Your task to perform on an android device: open app "Airtel Thanks" (install if not already installed), go to login, and select forgot password Image 0: 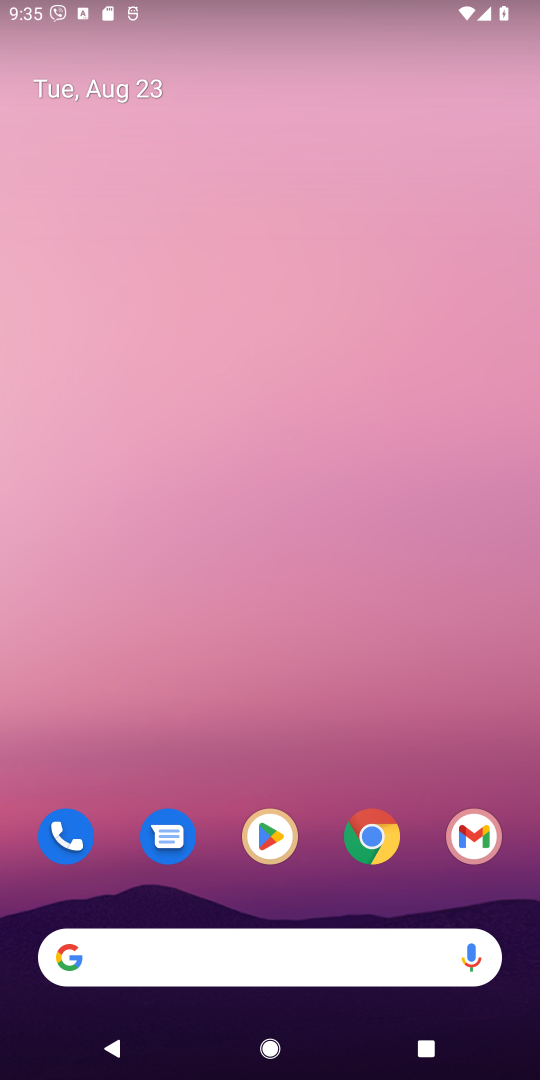
Step 0: click (269, 837)
Your task to perform on an android device: open app "Airtel Thanks" (install if not already installed), go to login, and select forgot password Image 1: 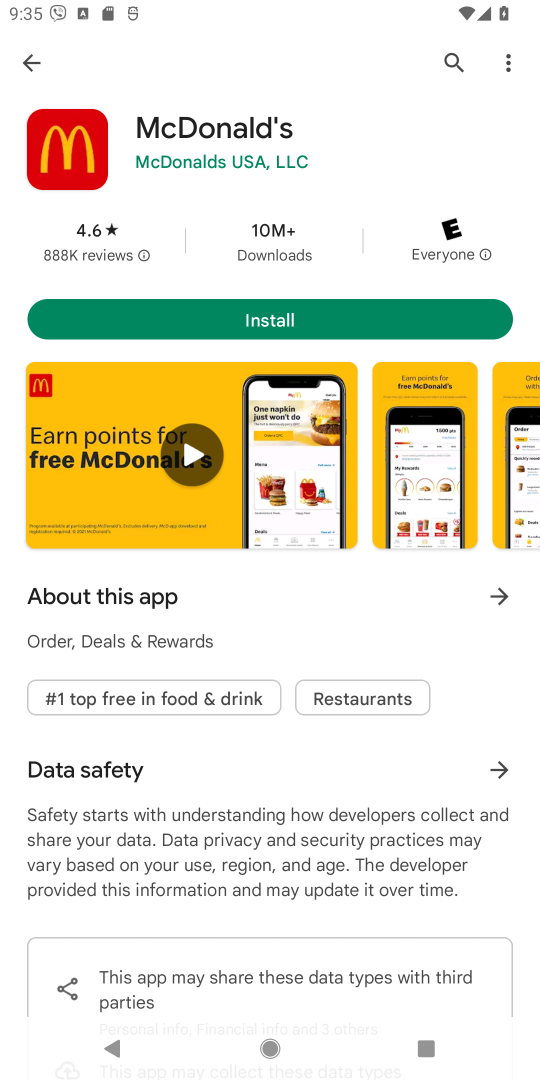
Step 1: click (448, 57)
Your task to perform on an android device: open app "Airtel Thanks" (install if not already installed), go to login, and select forgot password Image 2: 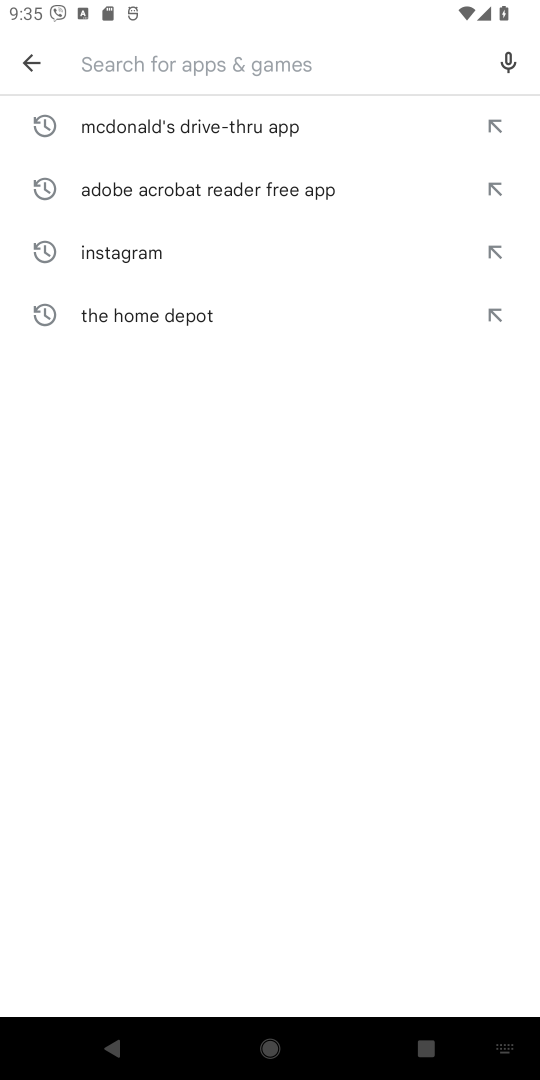
Step 2: type "Airtel Thanks"
Your task to perform on an android device: open app "Airtel Thanks" (install if not already installed), go to login, and select forgot password Image 3: 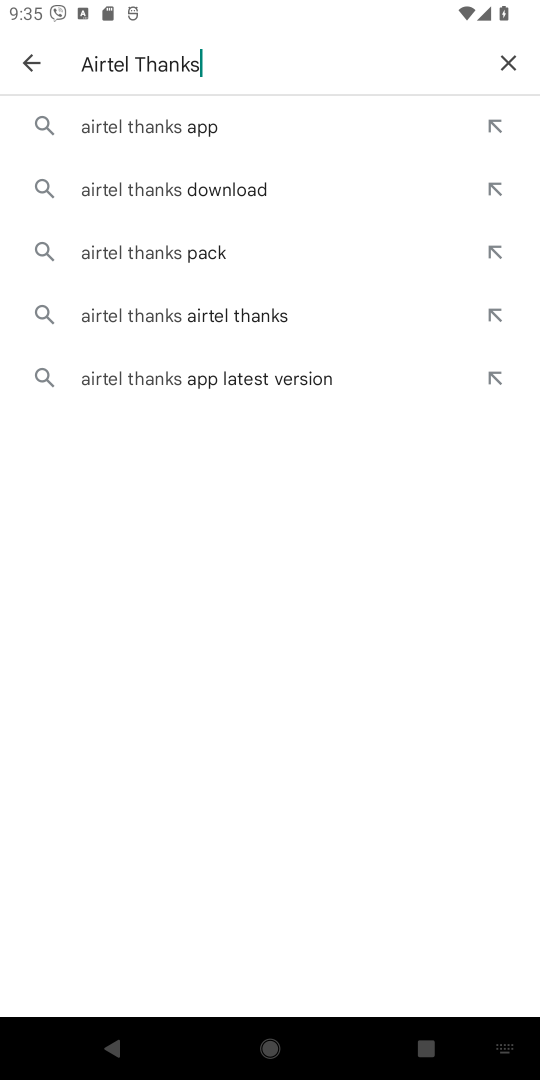
Step 3: click (153, 121)
Your task to perform on an android device: open app "Airtel Thanks" (install if not already installed), go to login, and select forgot password Image 4: 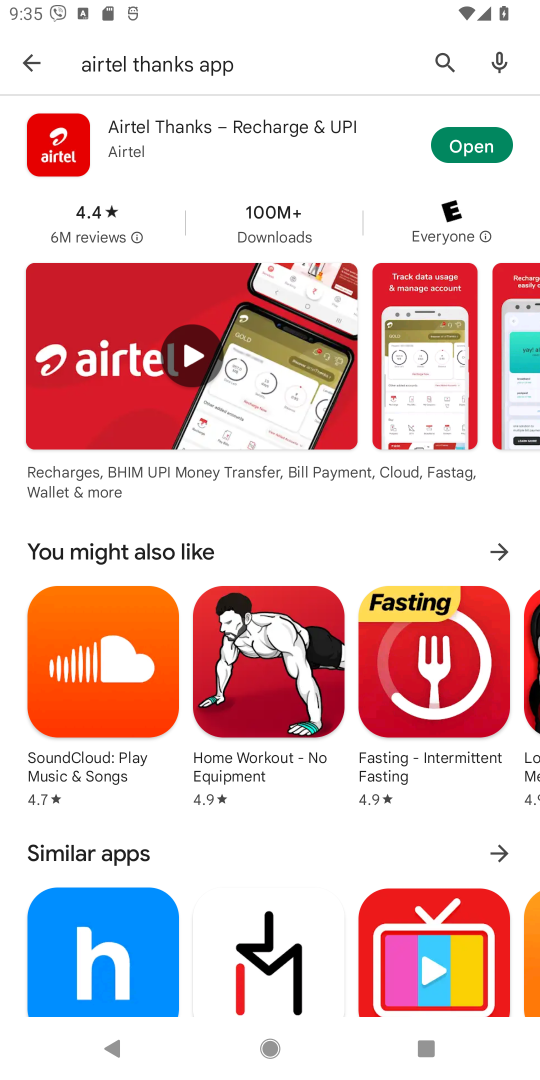
Step 4: click (476, 165)
Your task to perform on an android device: open app "Airtel Thanks" (install if not already installed), go to login, and select forgot password Image 5: 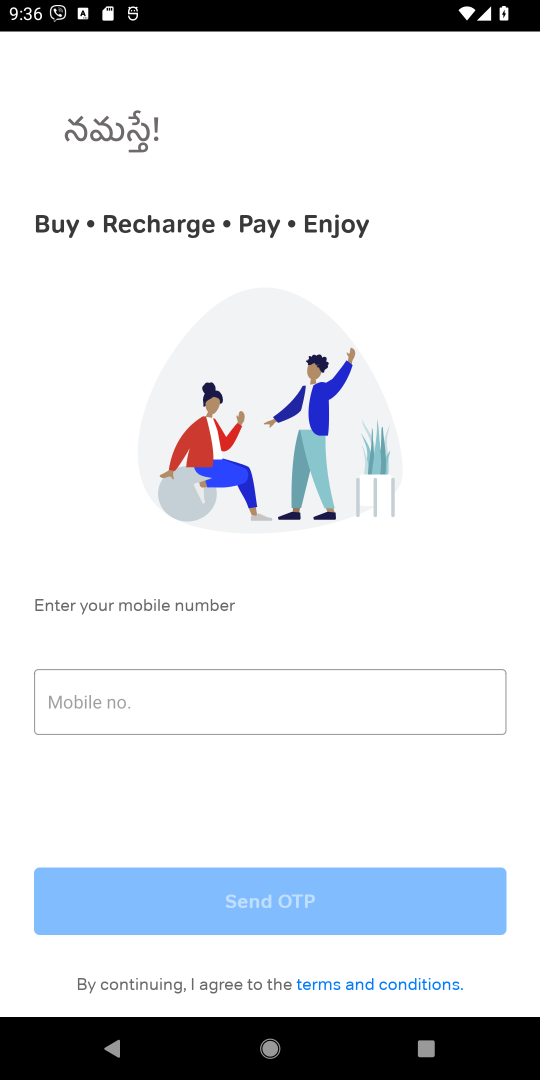
Step 5: task complete